Your task to perform on an android device: turn off smart reply in the gmail app Image 0: 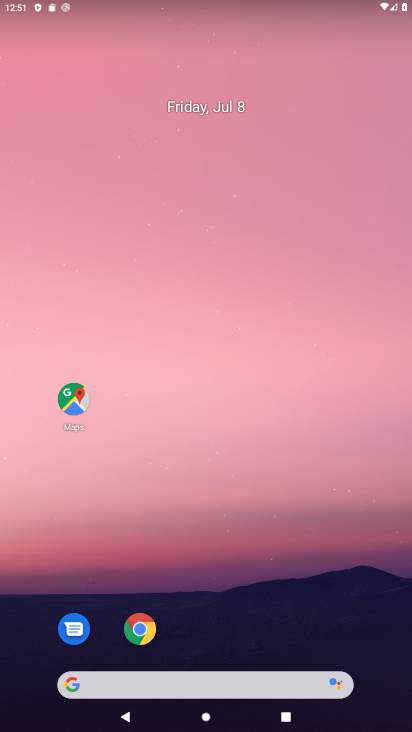
Step 0: drag from (150, 211) to (142, 168)
Your task to perform on an android device: turn off smart reply in the gmail app Image 1: 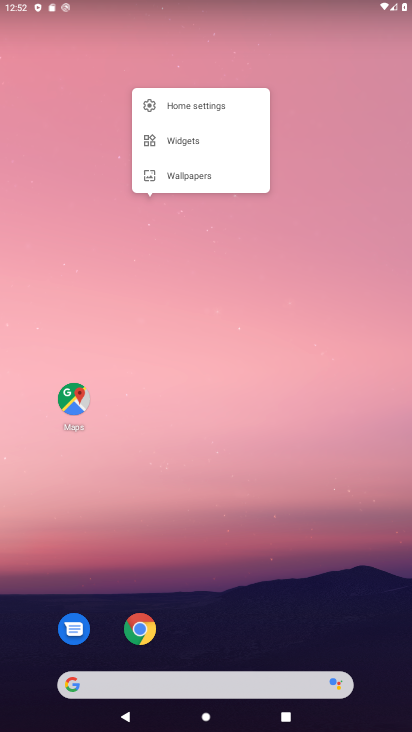
Step 1: click (190, 204)
Your task to perform on an android device: turn off smart reply in the gmail app Image 2: 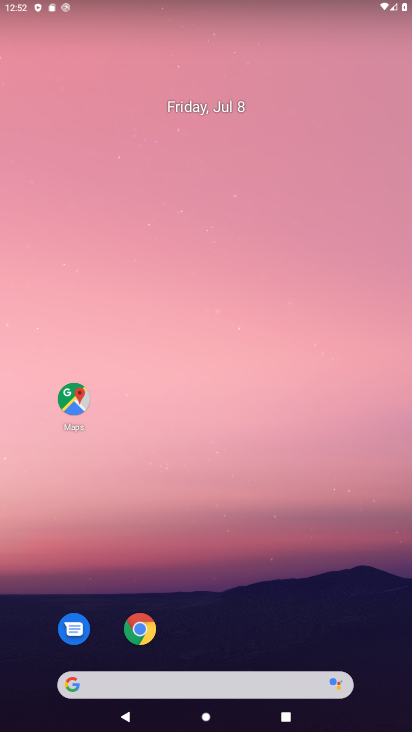
Step 2: click (153, 183)
Your task to perform on an android device: turn off smart reply in the gmail app Image 3: 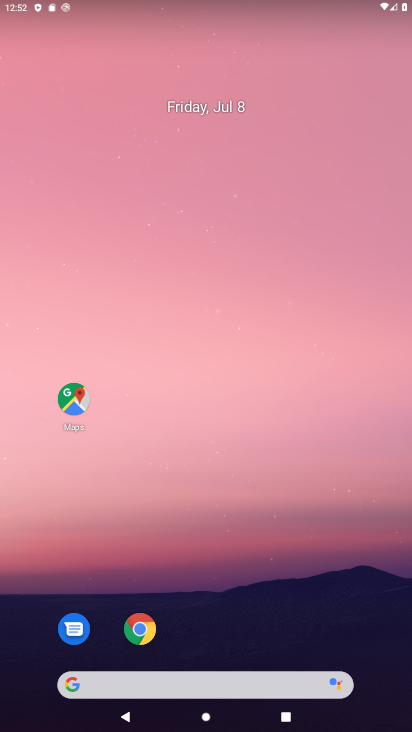
Step 3: click (17, 65)
Your task to perform on an android device: turn off smart reply in the gmail app Image 4: 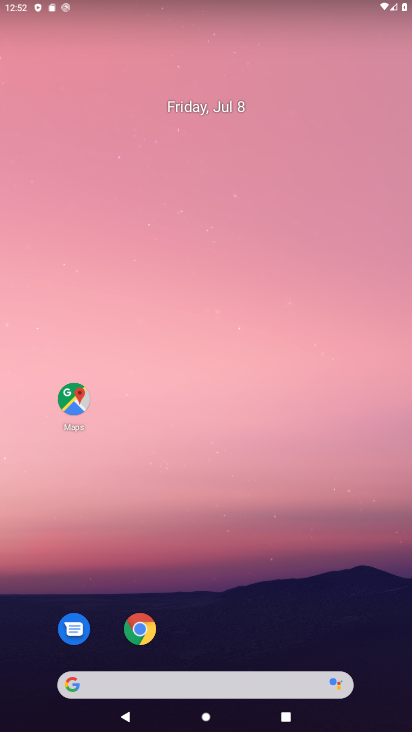
Step 4: drag from (227, 658) to (185, 10)
Your task to perform on an android device: turn off smart reply in the gmail app Image 5: 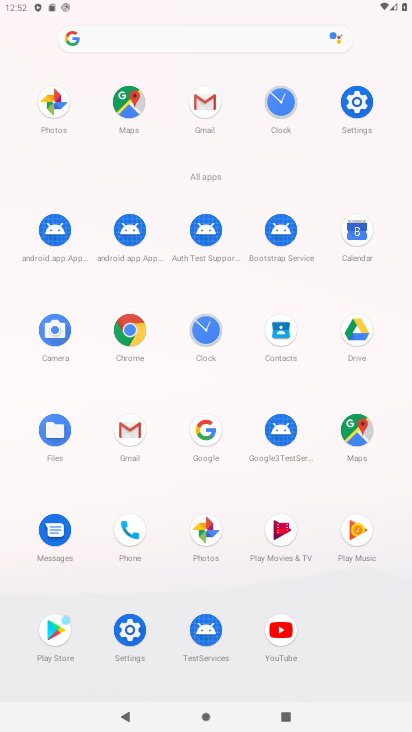
Step 5: drag from (188, 323) to (130, 112)
Your task to perform on an android device: turn off smart reply in the gmail app Image 6: 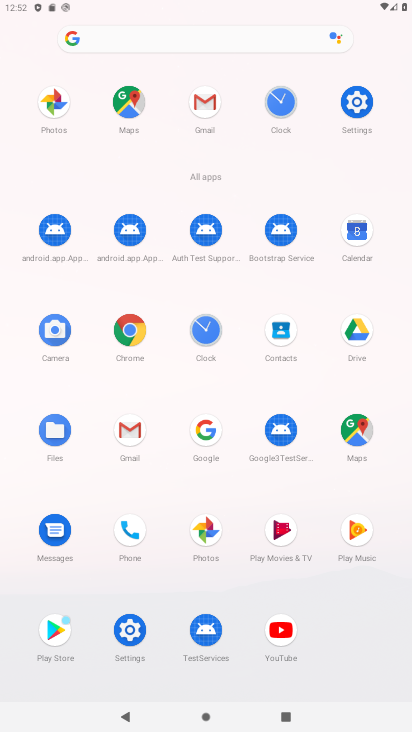
Step 6: drag from (159, 588) to (77, 10)
Your task to perform on an android device: turn off smart reply in the gmail app Image 7: 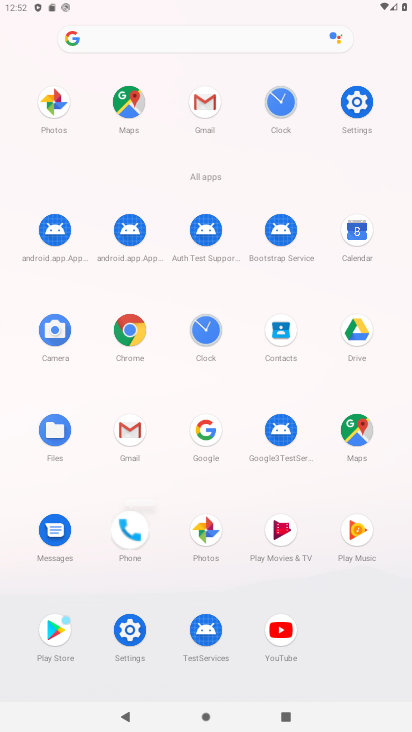
Step 7: drag from (169, 328) to (137, 152)
Your task to perform on an android device: turn off smart reply in the gmail app Image 8: 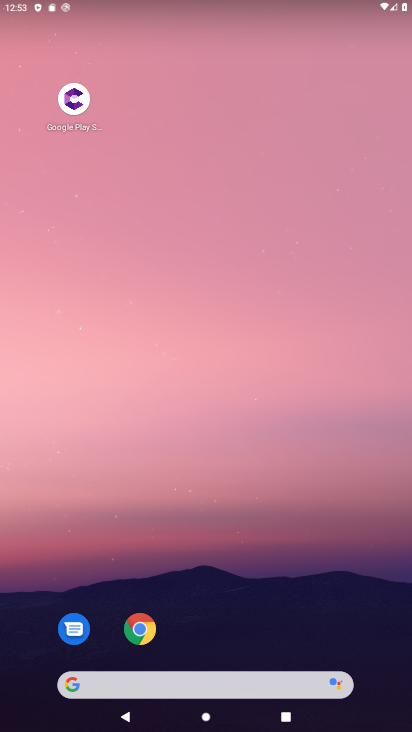
Step 8: drag from (245, 666) to (180, 195)
Your task to perform on an android device: turn off smart reply in the gmail app Image 9: 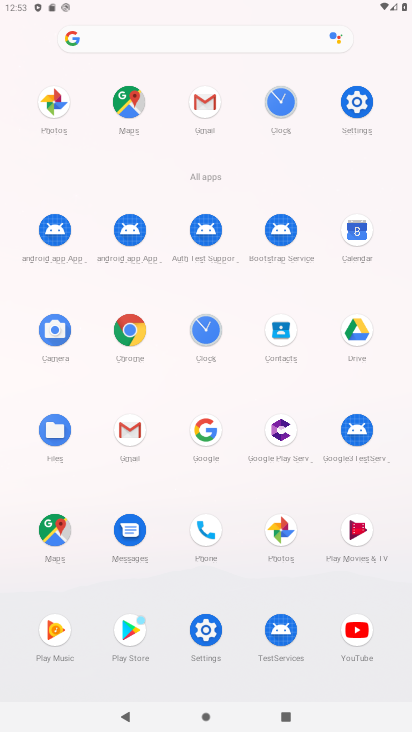
Step 9: drag from (228, 592) to (211, 65)
Your task to perform on an android device: turn off smart reply in the gmail app Image 10: 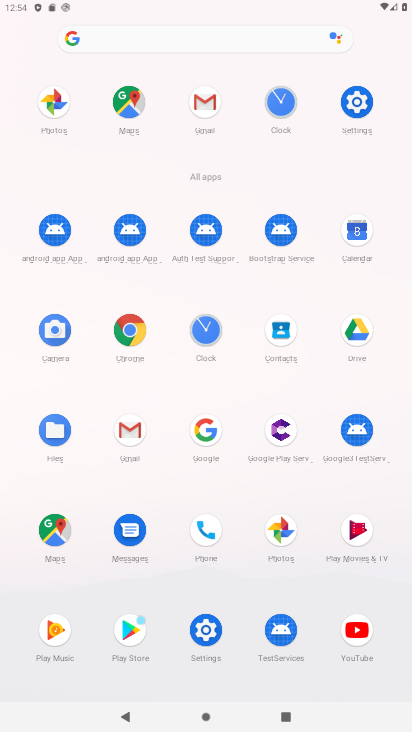
Step 10: click (135, 431)
Your task to perform on an android device: turn off smart reply in the gmail app Image 11: 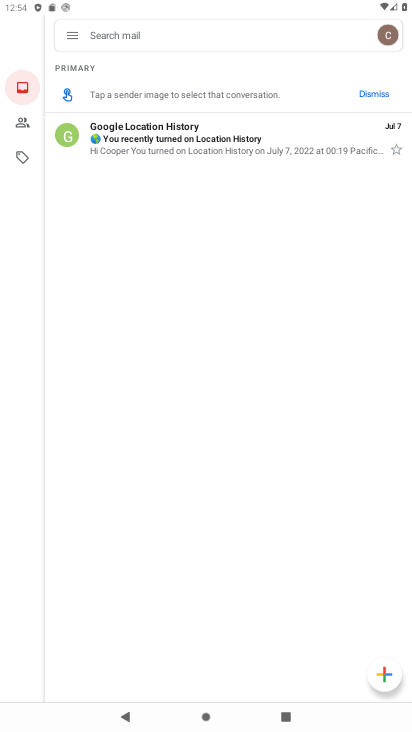
Step 11: click (28, 87)
Your task to perform on an android device: turn off smart reply in the gmail app Image 12: 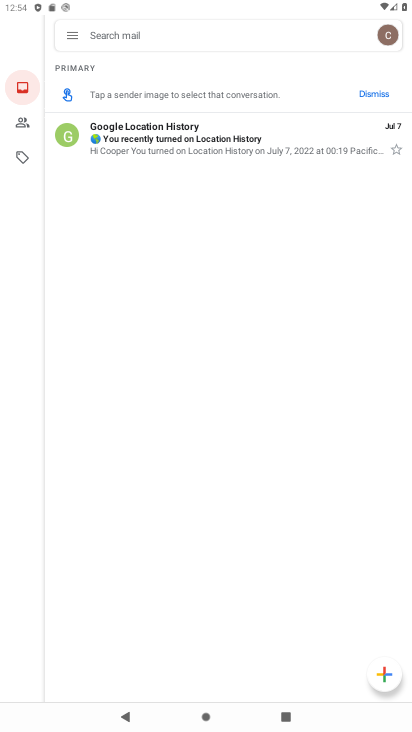
Step 12: click (31, 90)
Your task to perform on an android device: turn off smart reply in the gmail app Image 13: 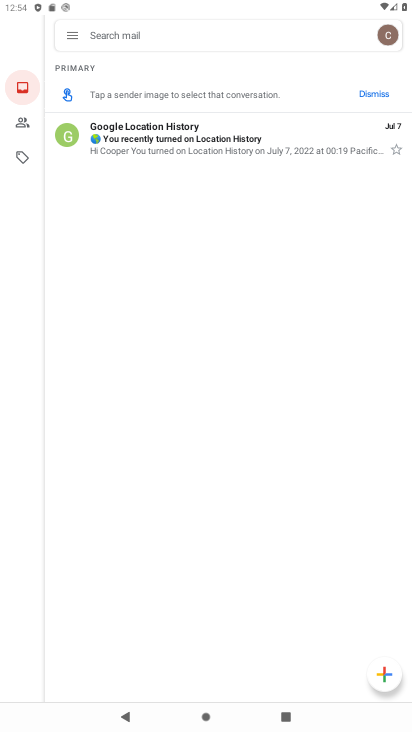
Step 13: click (33, 91)
Your task to perform on an android device: turn off smart reply in the gmail app Image 14: 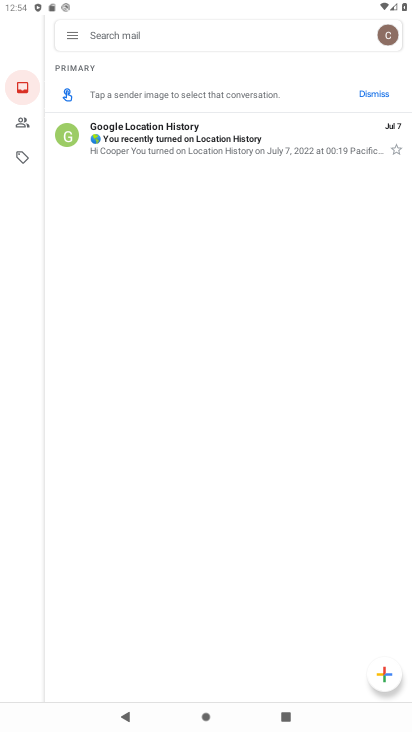
Step 14: click (77, 26)
Your task to perform on an android device: turn off smart reply in the gmail app Image 15: 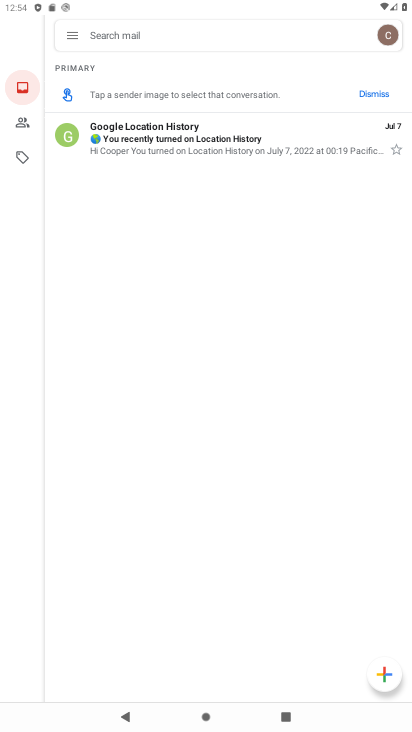
Step 15: click (67, 31)
Your task to perform on an android device: turn off smart reply in the gmail app Image 16: 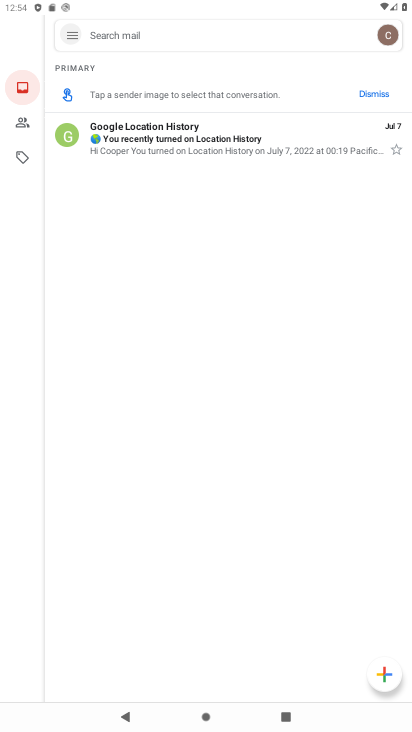
Step 16: click (67, 31)
Your task to perform on an android device: turn off smart reply in the gmail app Image 17: 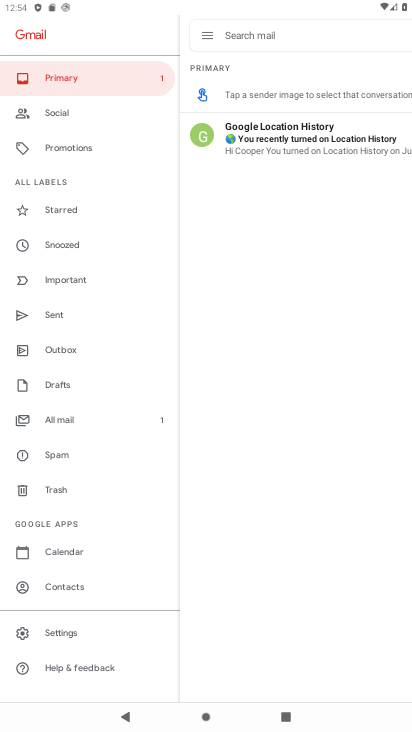
Step 17: click (19, 93)
Your task to perform on an android device: turn off smart reply in the gmail app Image 18: 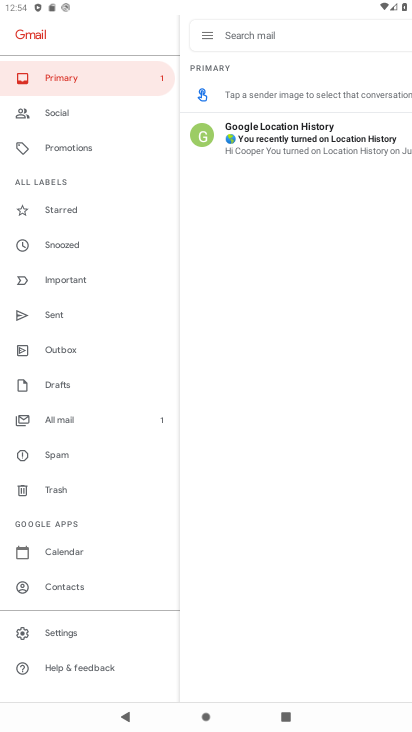
Step 18: click (19, 93)
Your task to perform on an android device: turn off smart reply in the gmail app Image 19: 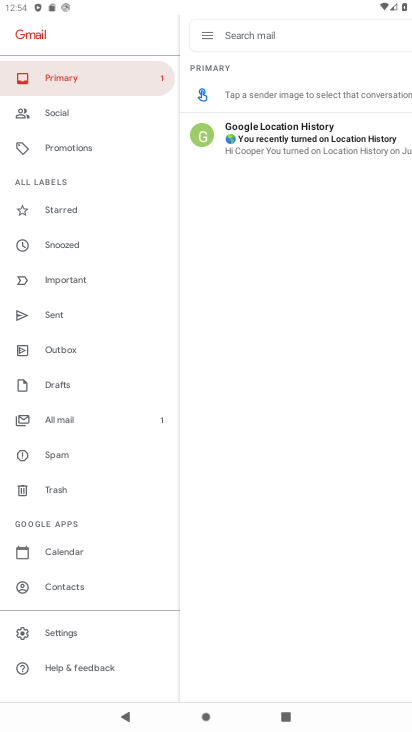
Step 19: click (19, 93)
Your task to perform on an android device: turn off smart reply in the gmail app Image 20: 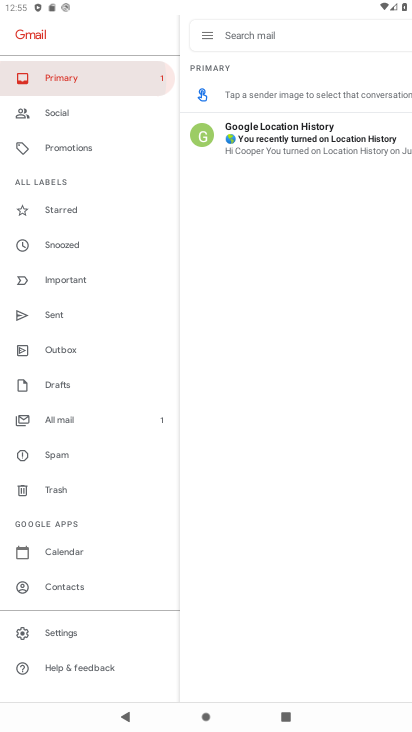
Step 20: click (20, 93)
Your task to perform on an android device: turn off smart reply in the gmail app Image 21: 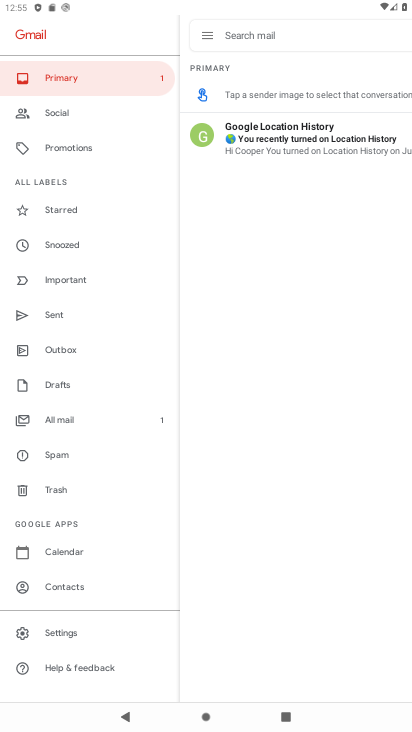
Step 21: click (20, 93)
Your task to perform on an android device: turn off smart reply in the gmail app Image 22: 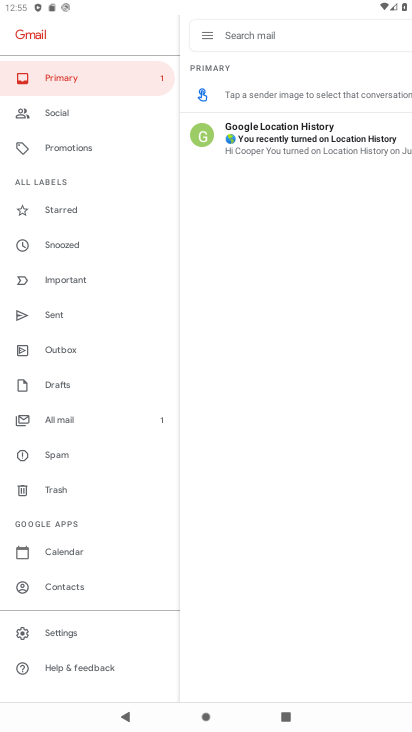
Step 22: click (58, 634)
Your task to perform on an android device: turn off smart reply in the gmail app Image 23: 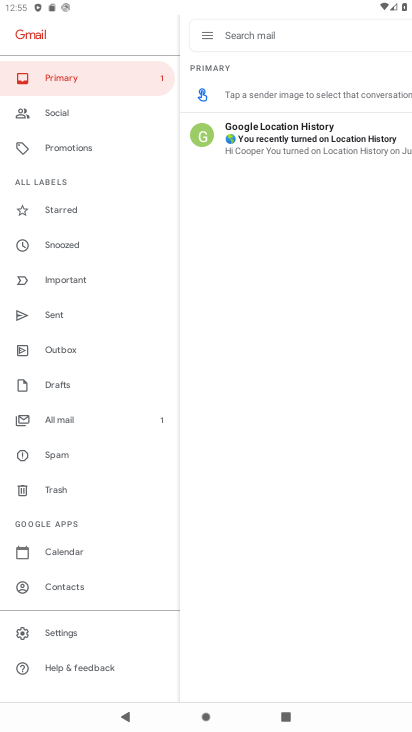
Step 23: click (68, 636)
Your task to perform on an android device: turn off smart reply in the gmail app Image 24: 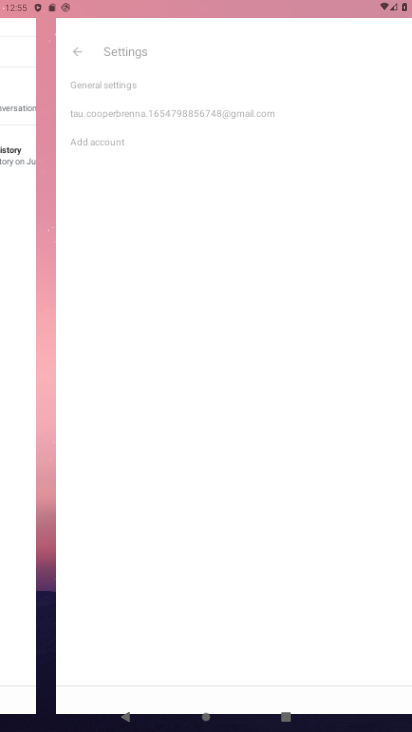
Step 24: click (69, 631)
Your task to perform on an android device: turn off smart reply in the gmail app Image 25: 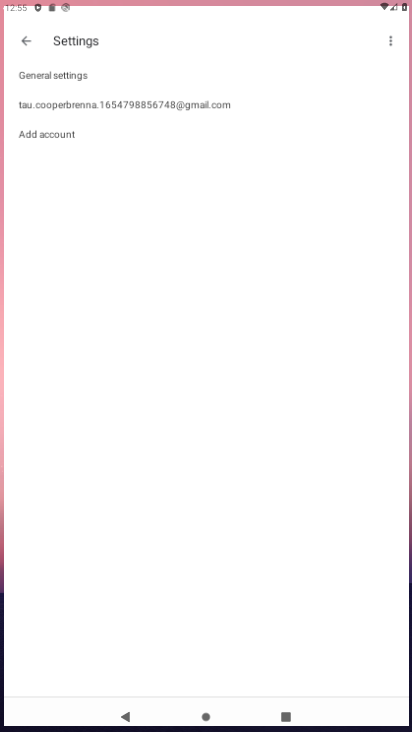
Step 25: click (68, 630)
Your task to perform on an android device: turn off smart reply in the gmail app Image 26: 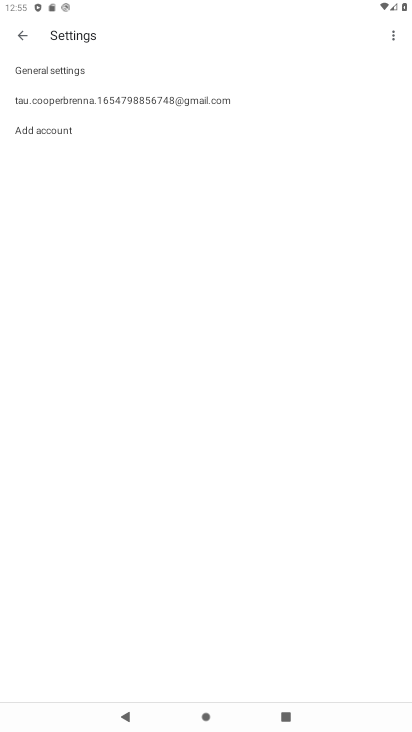
Step 26: click (66, 631)
Your task to perform on an android device: turn off smart reply in the gmail app Image 27: 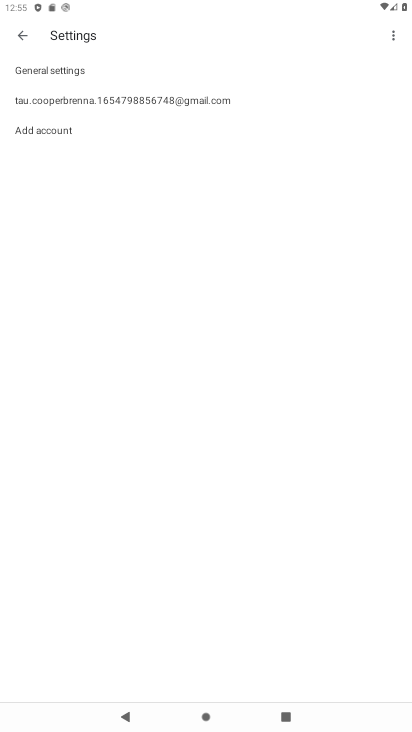
Step 27: click (116, 96)
Your task to perform on an android device: turn off smart reply in the gmail app Image 28: 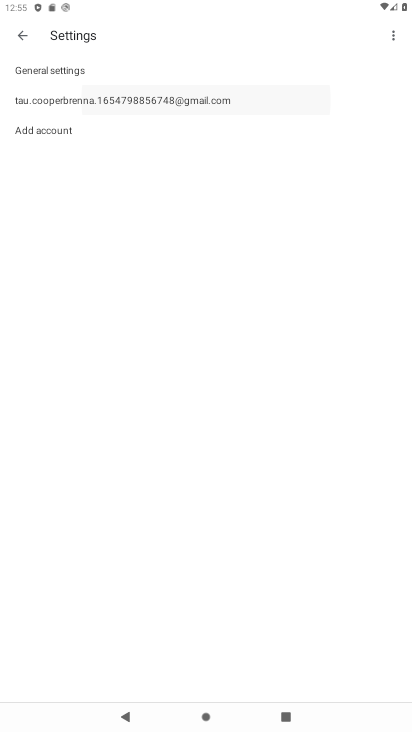
Step 28: click (127, 103)
Your task to perform on an android device: turn off smart reply in the gmail app Image 29: 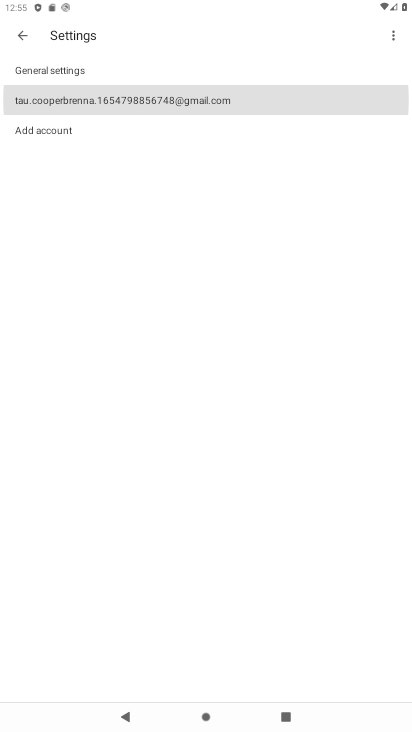
Step 29: click (126, 112)
Your task to perform on an android device: turn off smart reply in the gmail app Image 30: 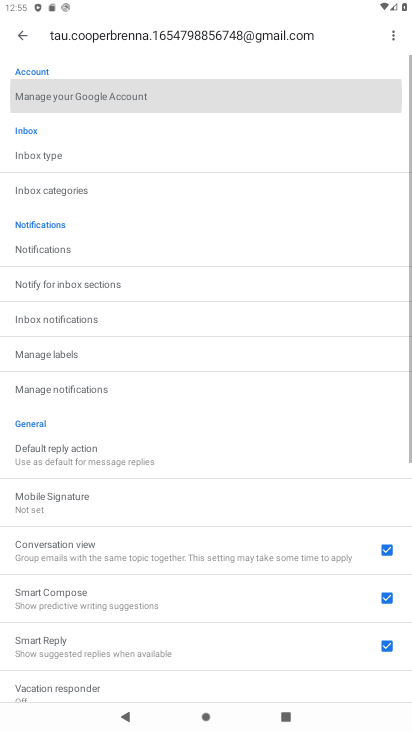
Step 30: click (126, 112)
Your task to perform on an android device: turn off smart reply in the gmail app Image 31: 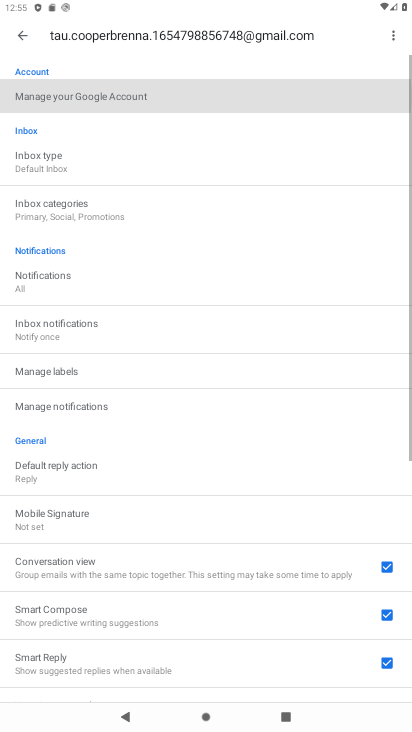
Step 31: click (126, 112)
Your task to perform on an android device: turn off smart reply in the gmail app Image 32: 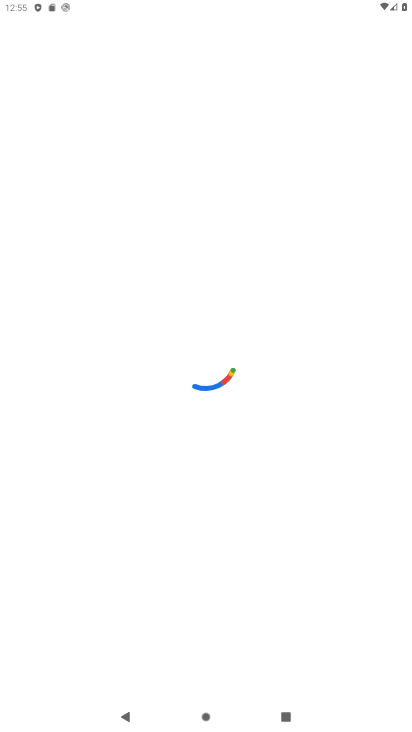
Step 32: click (125, 107)
Your task to perform on an android device: turn off smart reply in the gmail app Image 33: 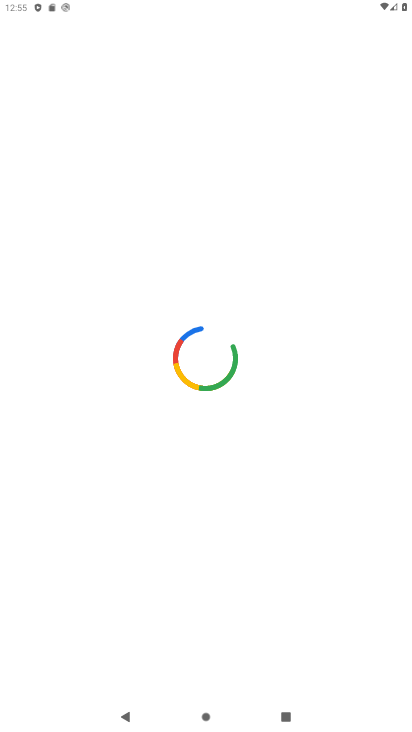
Step 33: task complete